Your task to perform on an android device: What's the weather? Image 0: 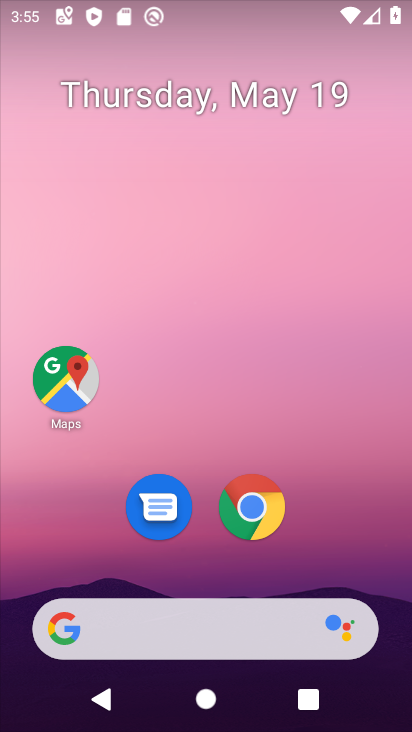
Step 0: click (358, 408)
Your task to perform on an android device: What's the weather? Image 1: 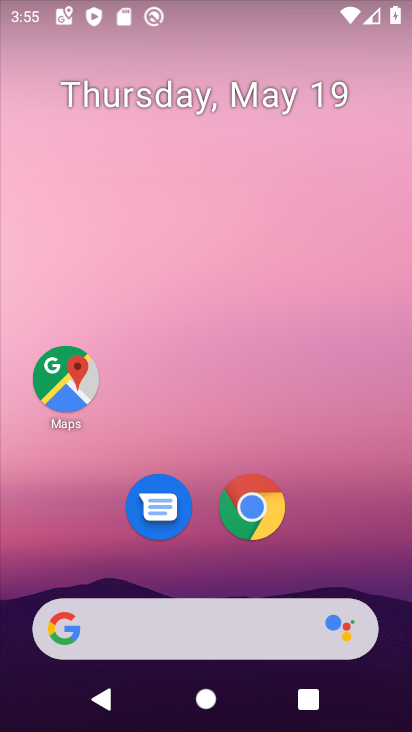
Step 1: drag from (398, 661) to (369, 254)
Your task to perform on an android device: What's the weather? Image 2: 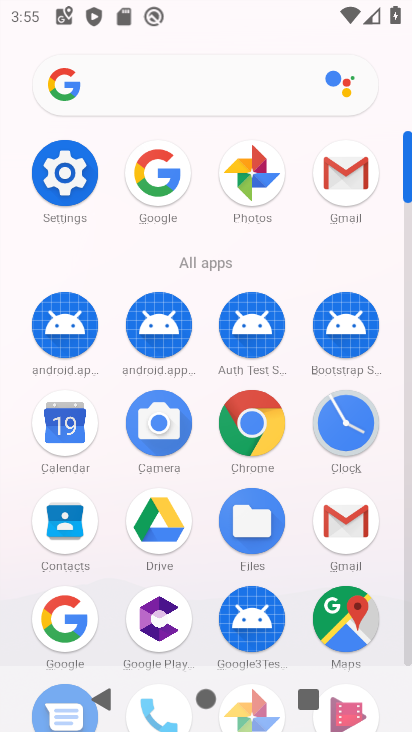
Step 2: click (47, 615)
Your task to perform on an android device: What's the weather? Image 3: 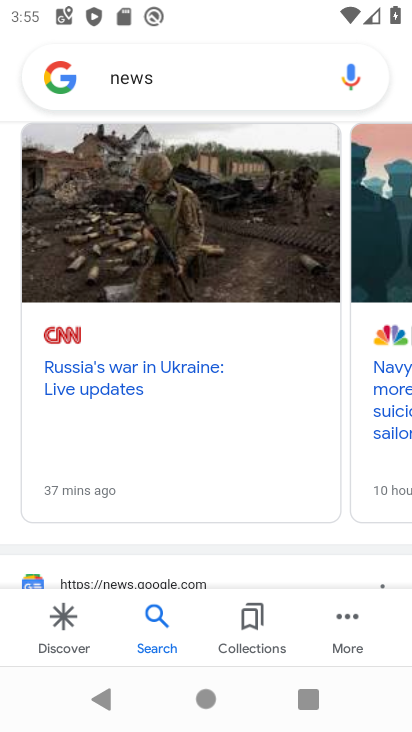
Step 3: drag from (267, 221) to (268, 544)
Your task to perform on an android device: What's the weather? Image 4: 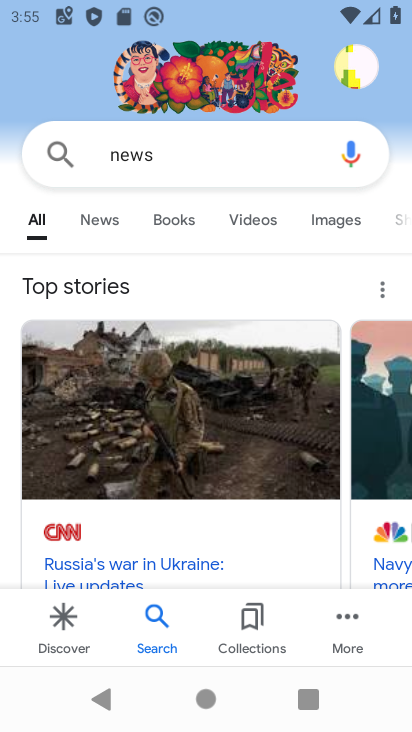
Step 4: click (153, 144)
Your task to perform on an android device: What's the weather? Image 5: 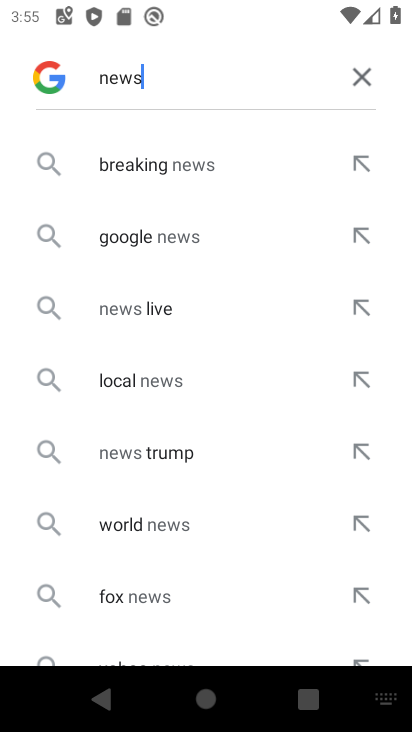
Step 5: click (352, 74)
Your task to perform on an android device: What's the weather? Image 6: 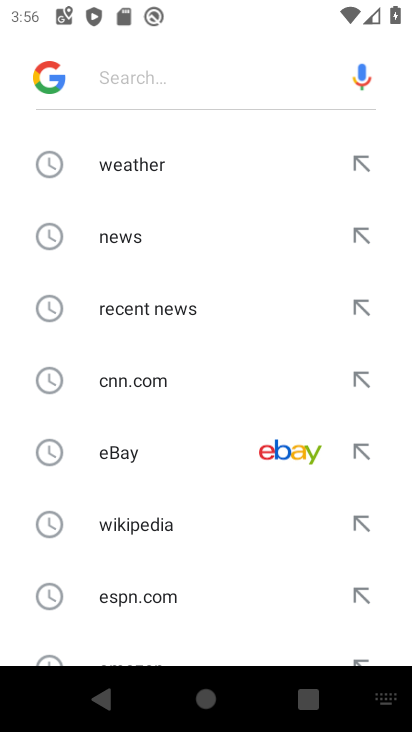
Step 6: type "weather"
Your task to perform on an android device: What's the weather? Image 7: 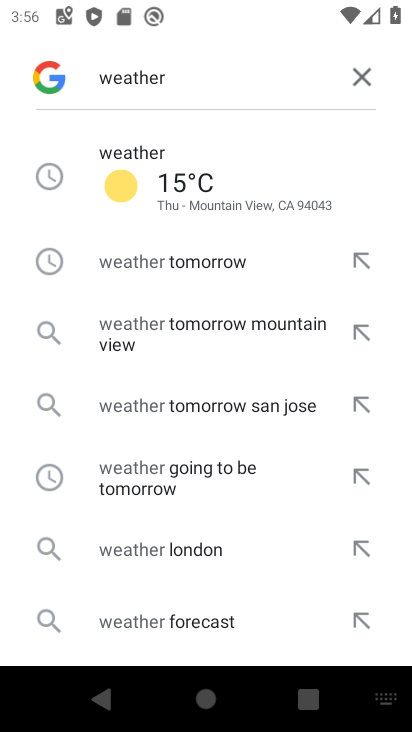
Step 7: click (136, 153)
Your task to perform on an android device: What's the weather? Image 8: 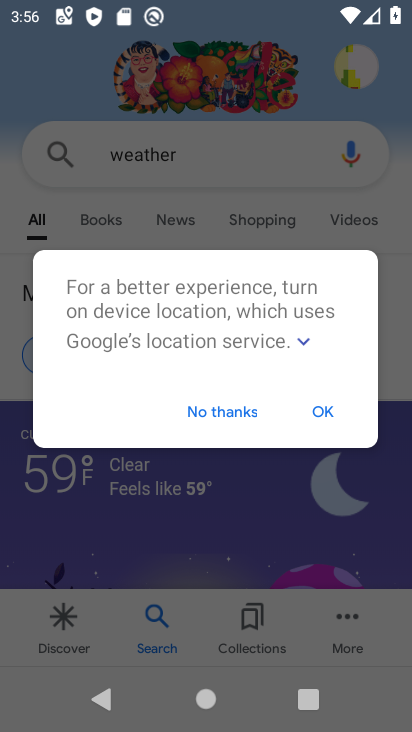
Step 8: click (321, 398)
Your task to perform on an android device: What's the weather? Image 9: 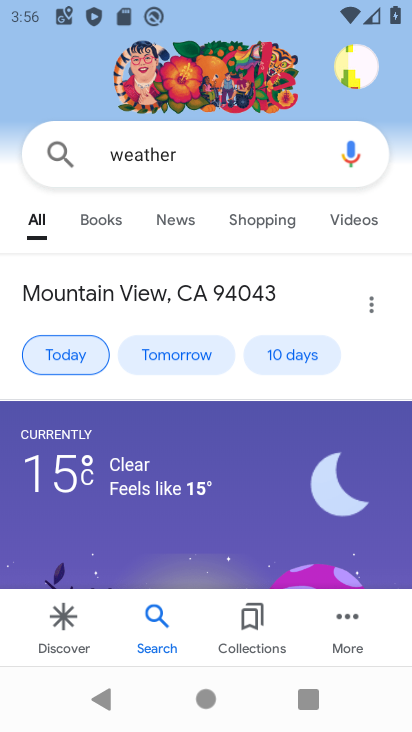
Step 9: click (81, 351)
Your task to perform on an android device: What's the weather? Image 10: 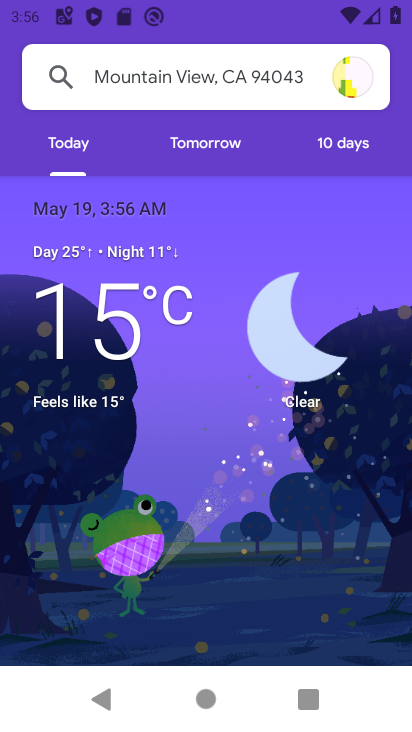
Step 10: task complete